Your task to perform on an android device: What's the weather going to be this weekend? Image 0: 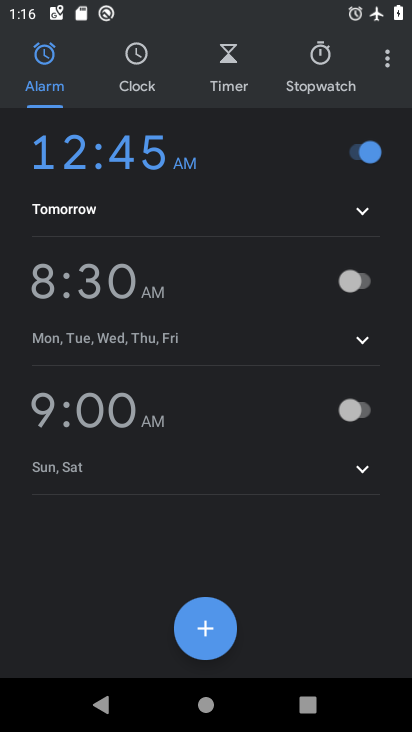
Step 0: press home button
Your task to perform on an android device: What's the weather going to be this weekend? Image 1: 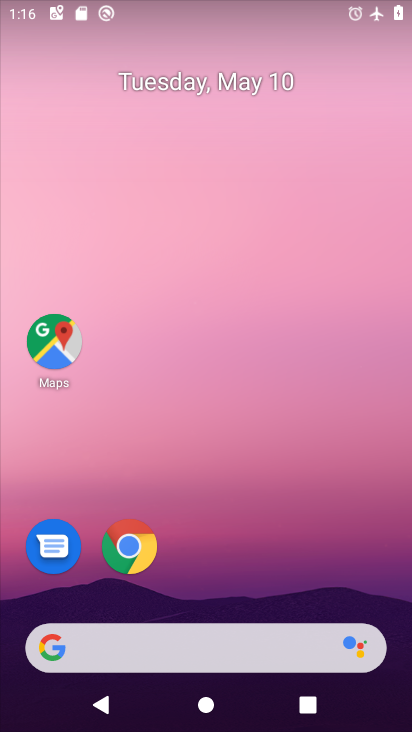
Step 1: click (158, 540)
Your task to perform on an android device: What's the weather going to be this weekend? Image 2: 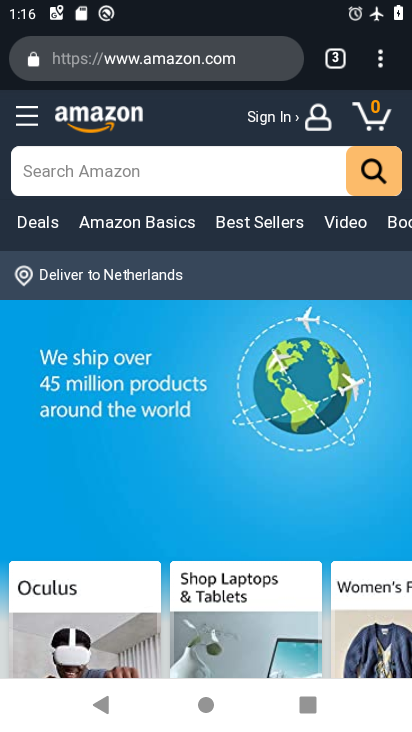
Step 2: drag from (285, 6) to (296, 633)
Your task to perform on an android device: What's the weather going to be this weekend? Image 3: 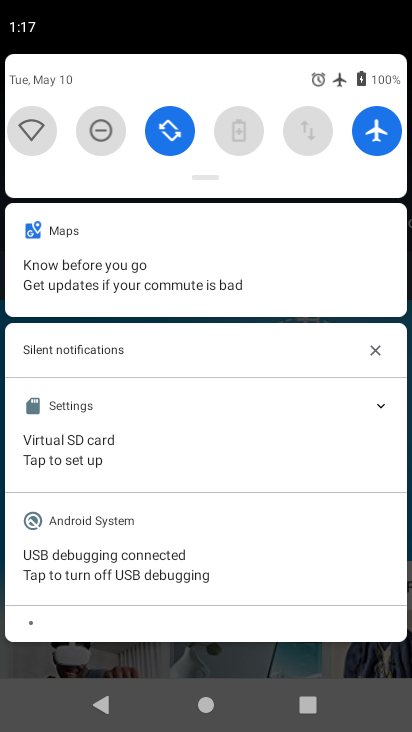
Step 3: click (382, 132)
Your task to perform on an android device: What's the weather going to be this weekend? Image 4: 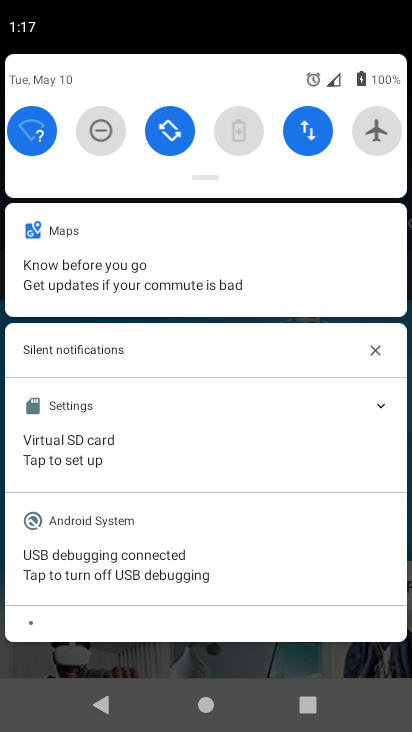
Step 4: drag from (324, 659) to (308, 253)
Your task to perform on an android device: What's the weather going to be this weekend? Image 5: 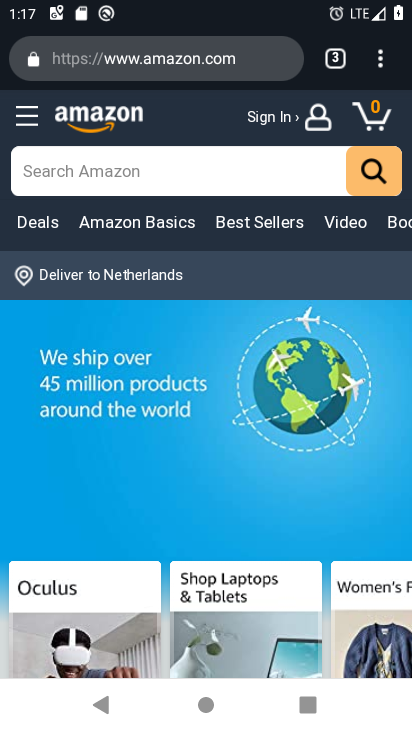
Step 5: click (125, 54)
Your task to perform on an android device: What's the weather going to be this weekend? Image 6: 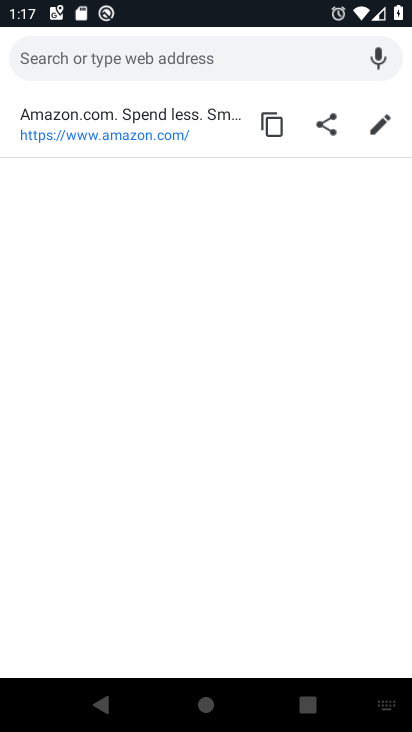
Step 6: type "What's the weather going to be this weekend?"
Your task to perform on an android device: What's the weather going to be this weekend? Image 7: 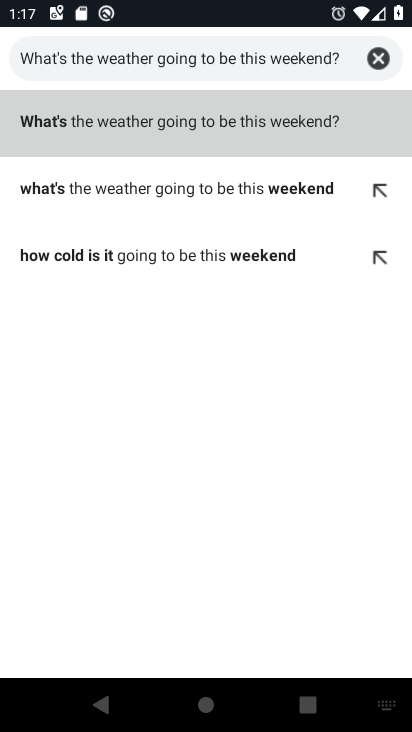
Step 7: click (99, 124)
Your task to perform on an android device: What's the weather going to be this weekend? Image 8: 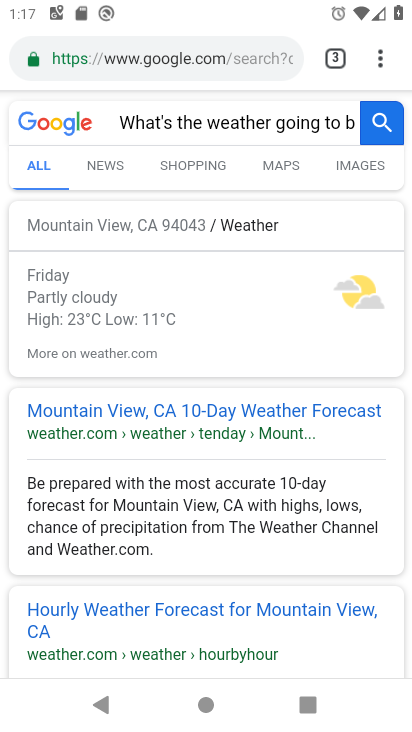
Step 8: task complete